Your task to perform on an android device: Clear all items from cart on ebay.com. Search for "bose quietcomfort 35" on ebay.com, select the first entry, and add it to the cart. Image 0: 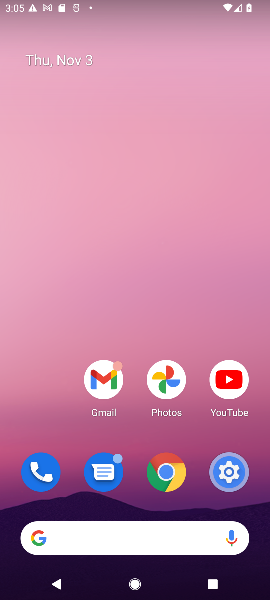
Step 0: click (151, 530)
Your task to perform on an android device: Clear all items from cart on ebay.com. Search for "bose quietcomfort 35" on ebay.com, select the first entry, and add it to the cart. Image 1: 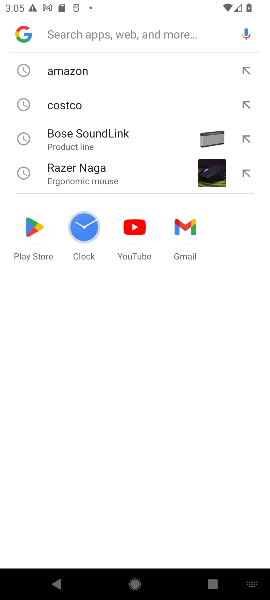
Step 1: type "ebay.com"
Your task to perform on an android device: Clear all items from cart on ebay.com. Search for "bose quietcomfort 35" on ebay.com, select the first entry, and add it to the cart. Image 2: 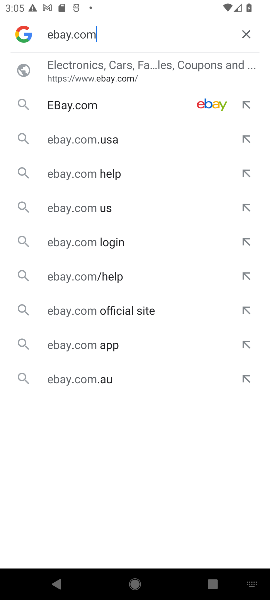
Step 2: click (163, 75)
Your task to perform on an android device: Clear all items from cart on ebay.com. Search for "bose quietcomfort 35" on ebay.com, select the first entry, and add it to the cart. Image 3: 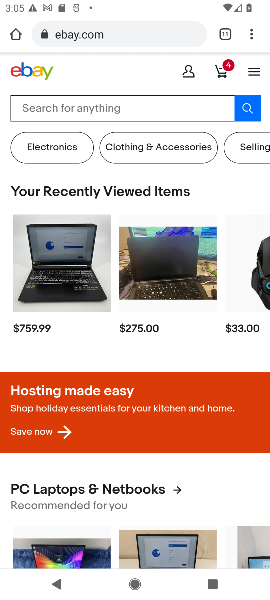
Step 3: click (160, 102)
Your task to perform on an android device: Clear all items from cart on ebay.com. Search for "bose quietcomfort 35" on ebay.com, select the first entry, and add it to the cart. Image 4: 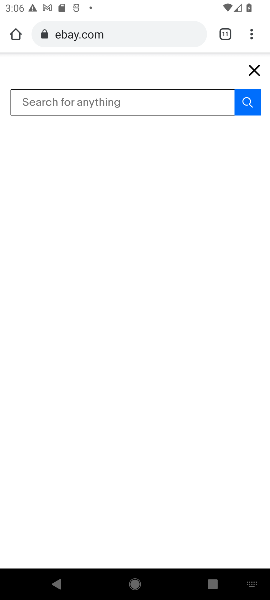
Step 4: type "bose quitcomfort 35"
Your task to perform on an android device: Clear all items from cart on ebay.com. Search for "bose quietcomfort 35" on ebay.com, select the first entry, and add it to the cart. Image 5: 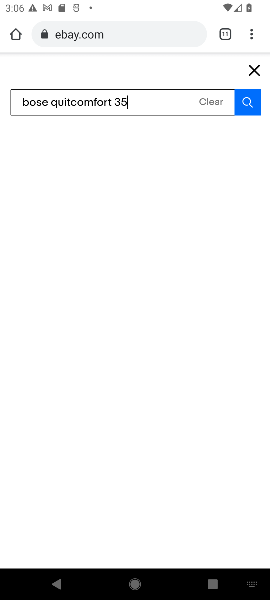
Step 5: click (247, 103)
Your task to perform on an android device: Clear all items from cart on ebay.com. Search for "bose quietcomfort 35" on ebay.com, select the first entry, and add it to the cart. Image 6: 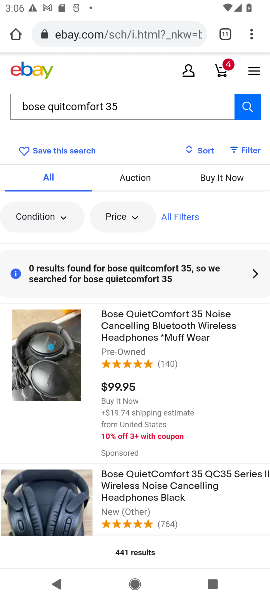
Step 6: click (194, 319)
Your task to perform on an android device: Clear all items from cart on ebay.com. Search for "bose quietcomfort 35" on ebay.com, select the first entry, and add it to the cart. Image 7: 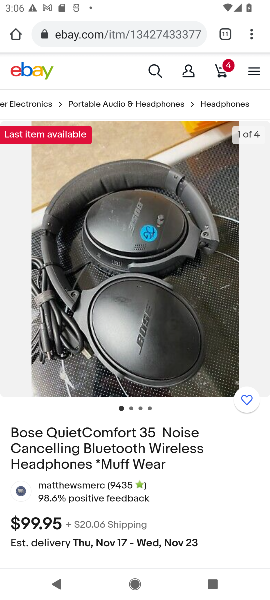
Step 7: drag from (205, 523) to (179, 358)
Your task to perform on an android device: Clear all items from cart on ebay.com. Search for "bose quietcomfort 35" on ebay.com, select the first entry, and add it to the cart. Image 8: 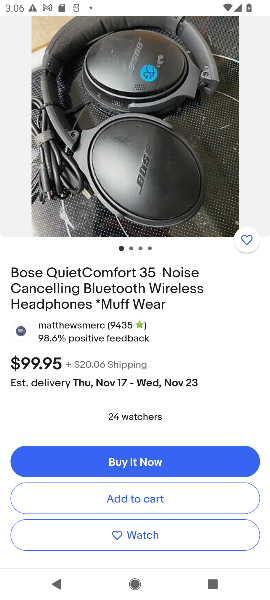
Step 8: click (203, 495)
Your task to perform on an android device: Clear all items from cart on ebay.com. Search for "bose quietcomfort 35" on ebay.com, select the first entry, and add it to the cart. Image 9: 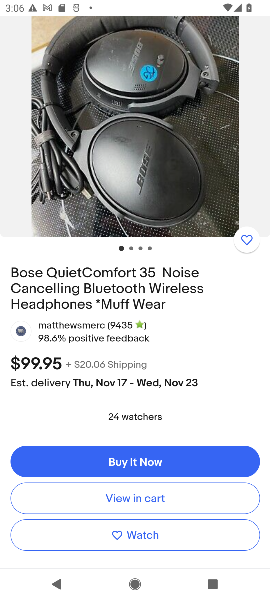
Step 9: task complete